Your task to perform on an android device: all mails in gmail Image 0: 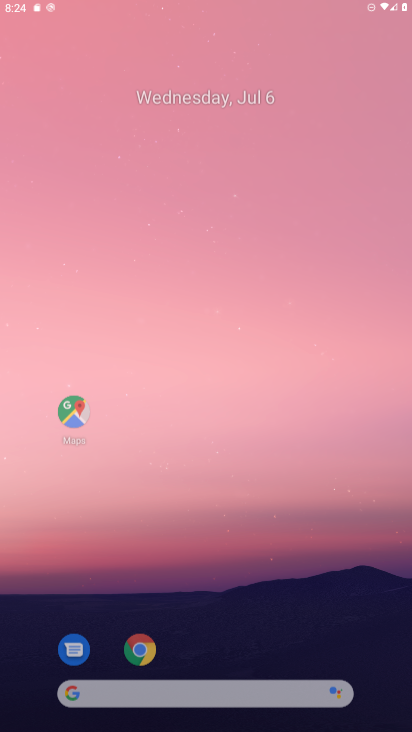
Step 0: drag from (235, 645) to (224, 339)
Your task to perform on an android device: all mails in gmail Image 1: 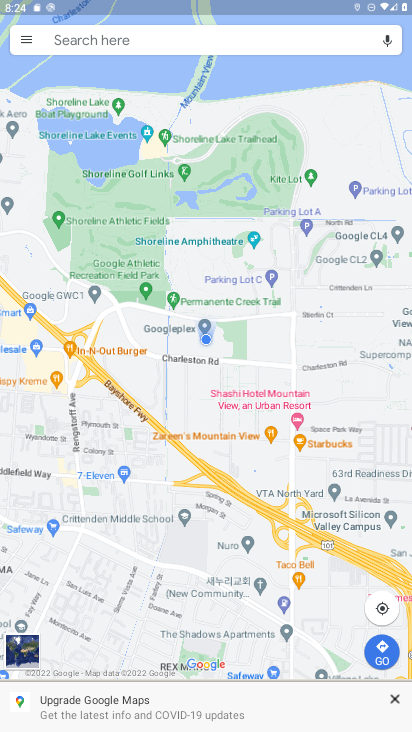
Step 1: press home button
Your task to perform on an android device: all mails in gmail Image 2: 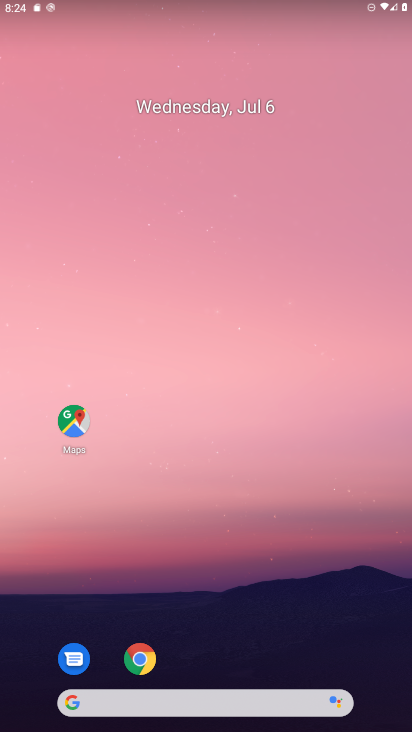
Step 2: drag from (159, 564) to (156, 212)
Your task to perform on an android device: all mails in gmail Image 3: 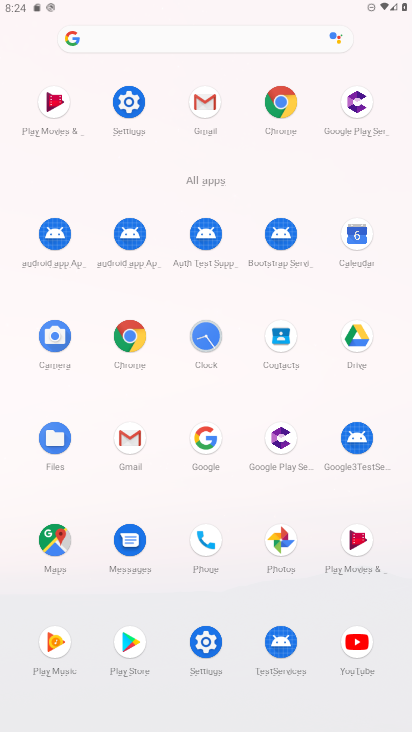
Step 3: click (207, 125)
Your task to perform on an android device: all mails in gmail Image 4: 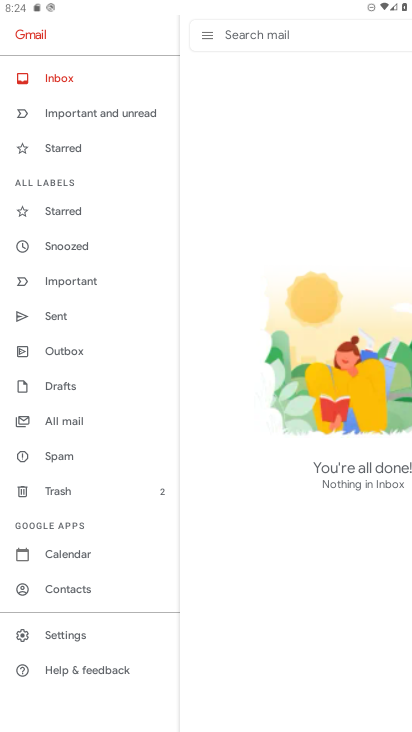
Step 4: click (81, 422)
Your task to perform on an android device: all mails in gmail Image 5: 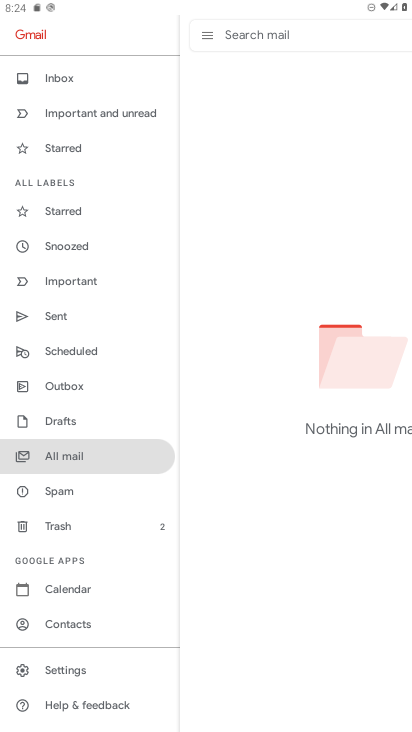
Step 5: task complete